Your task to perform on an android device: remove spam from my inbox in the gmail app Image 0: 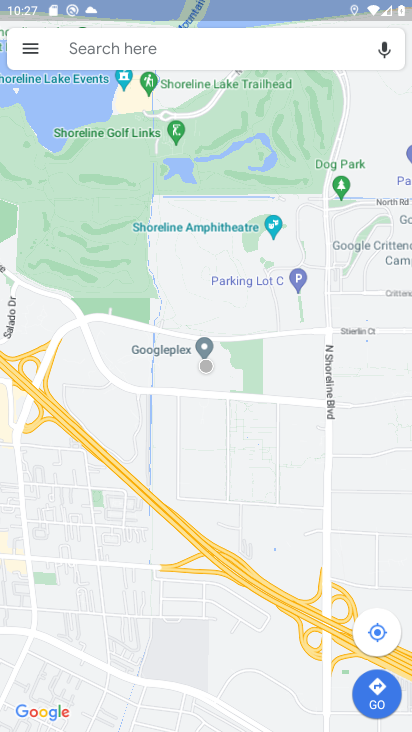
Step 0: press home button
Your task to perform on an android device: remove spam from my inbox in the gmail app Image 1: 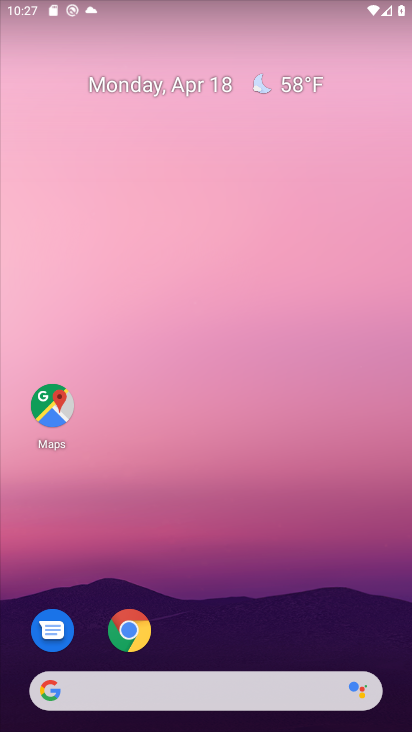
Step 1: drag from (225, 662) to (192, 73)
Your task to perform on an android device: remove spam from my inbox in the gmail app Image 2: 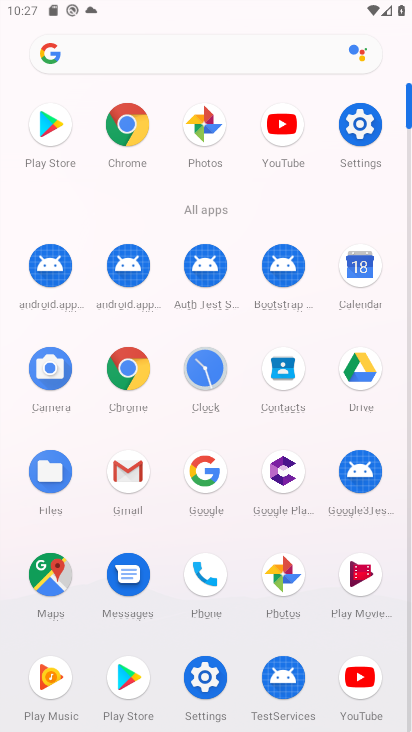
Step 2: click (142, 473)
Your task to perform on an android device: remove spam from my inbox in the gmail app Image 3: 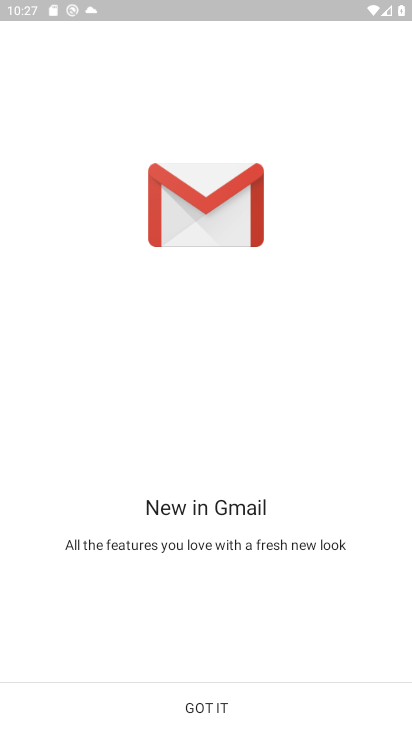
Step 3: click (172, 694)
Your task to perform on an android device: remove spam from my inbox in the gmail app Image 4: 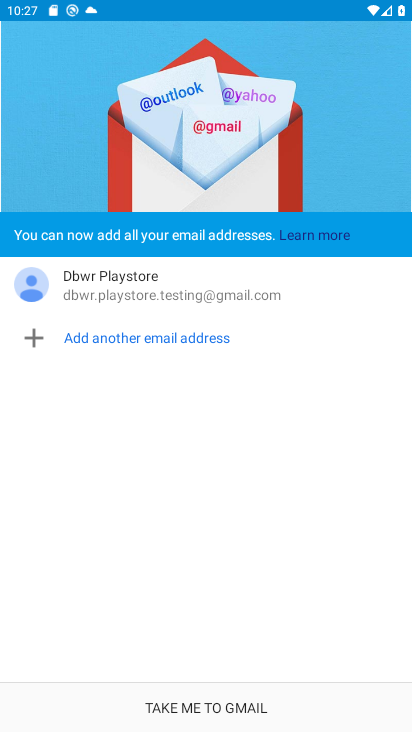
Step 4: click (187, 697)
Your task to perform on an android device: remove spam from my inbox in the gmail app Image 5: 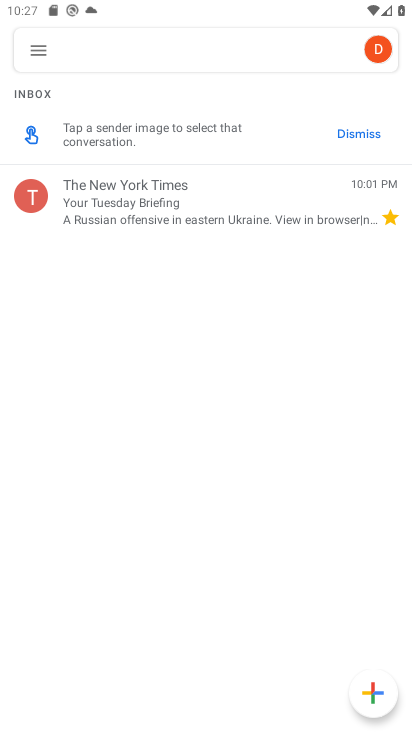
Step 5: click (29, 61)
Your task to perform on an android device: remove spam from my inbox in the gmail app Image 6: 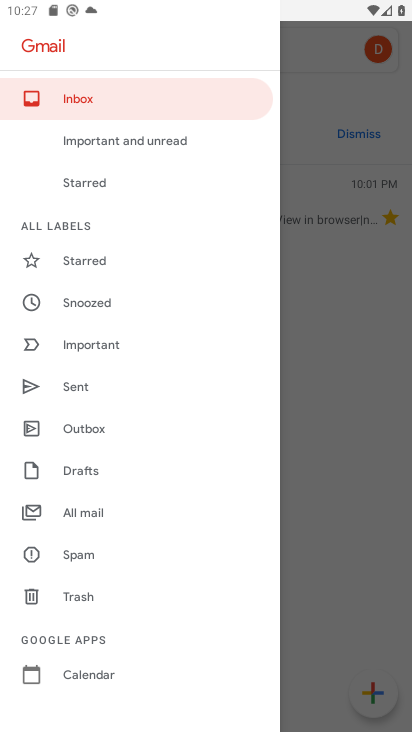
Step 6: click (72, 549)
Your task to perform on an android device: remove spam from my inbox in the gmail app Image 7: 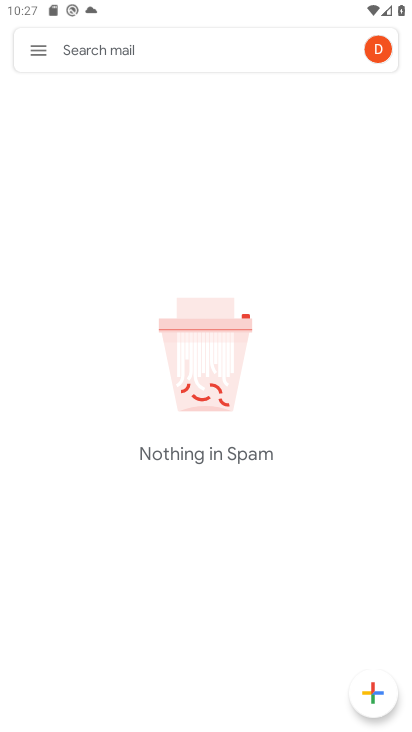
Step 7: task complete